Your task to perform on an android device: View the shopping cart on newegg.com. Search for apple airpods pro on newegg.com, select the first entry, and add it to the cart. Image 0: 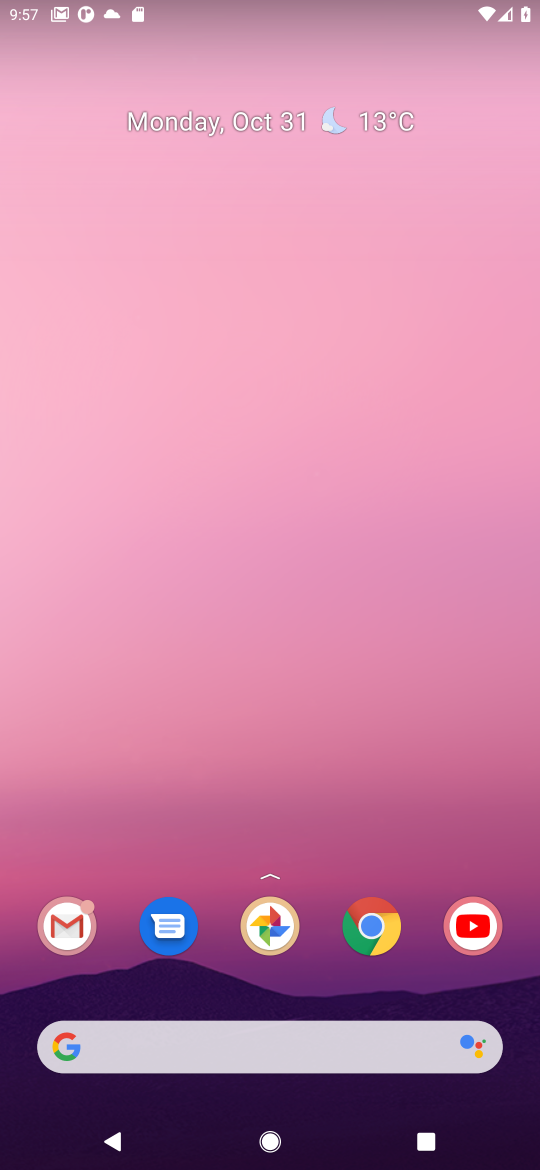
Step 0: click (346, 1053)
Your task to perform on an android device: View the shopping cart on newegg.com. Search for apple airpods pro on newegg.com, select the first entry, and add it to the cart. Image 1: 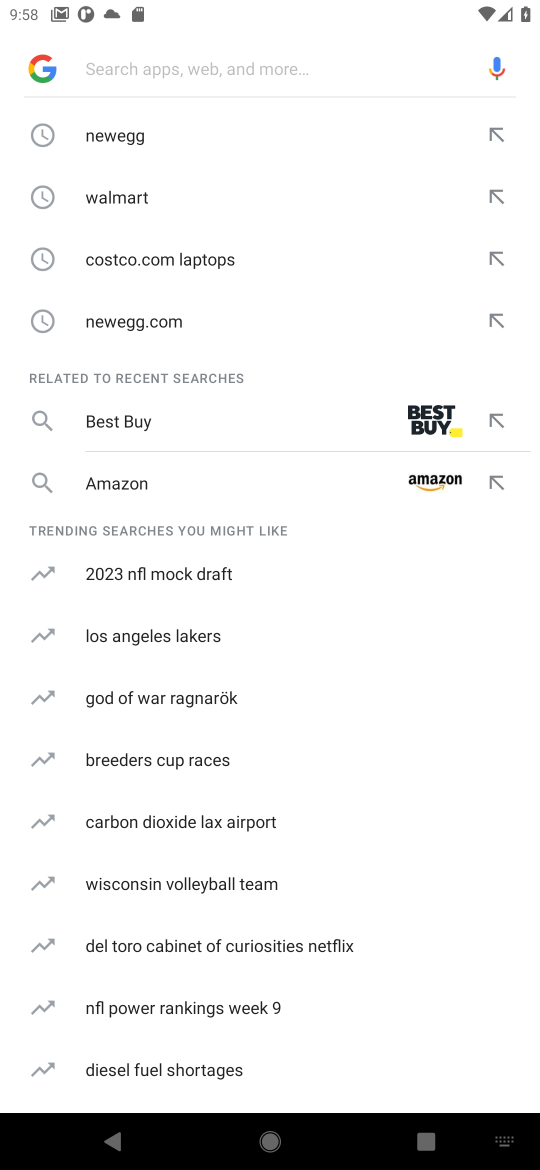
Step 1: click (124, 137)
Your task to perform on an android device: View the shopping cart on newegg.com. Search for apple airpods pro on newegg.com, select the first entry, and add it to the cart. Image 2: 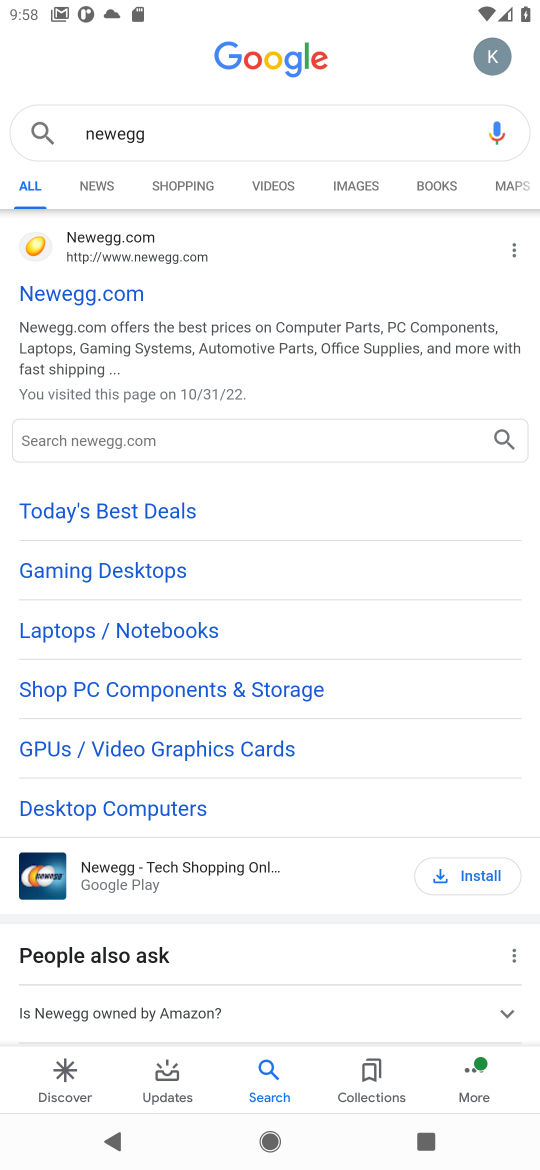
Step 2: click (361, 438)
Your task to perform on an android device: View the shopping cart on newegg.com. Search for apple airpods pro on newegg.com, select the first entry, and add it to the cart. Image 3: 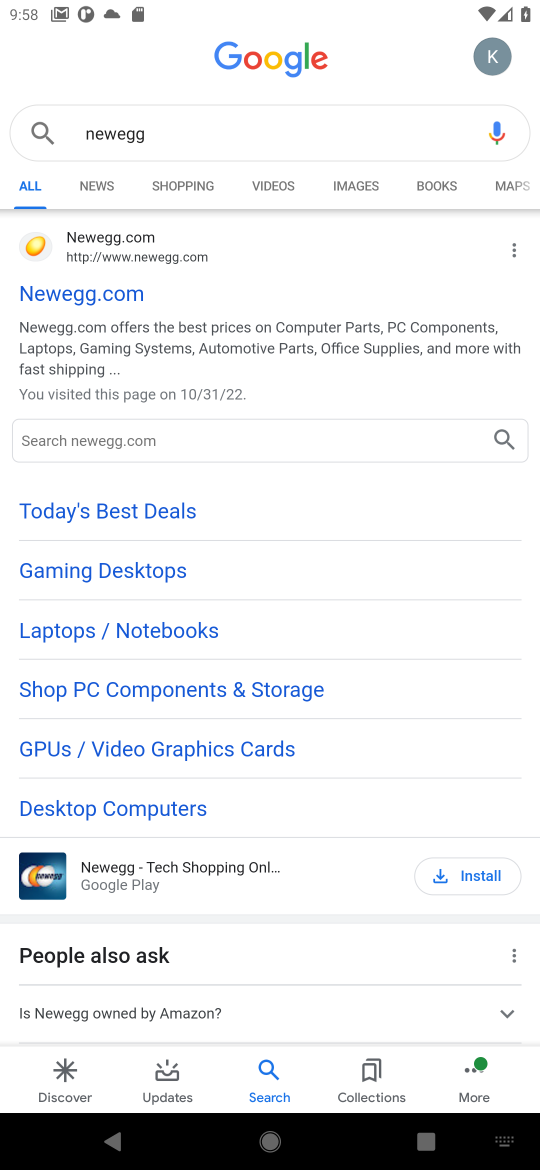
Step 3: type "apple airpods"
Your task to perform on an android device: View the shopping cart on newegg.com. Search for apple airpods pro on newegg.com, select the first entry, and add it to the cart. Image 4: 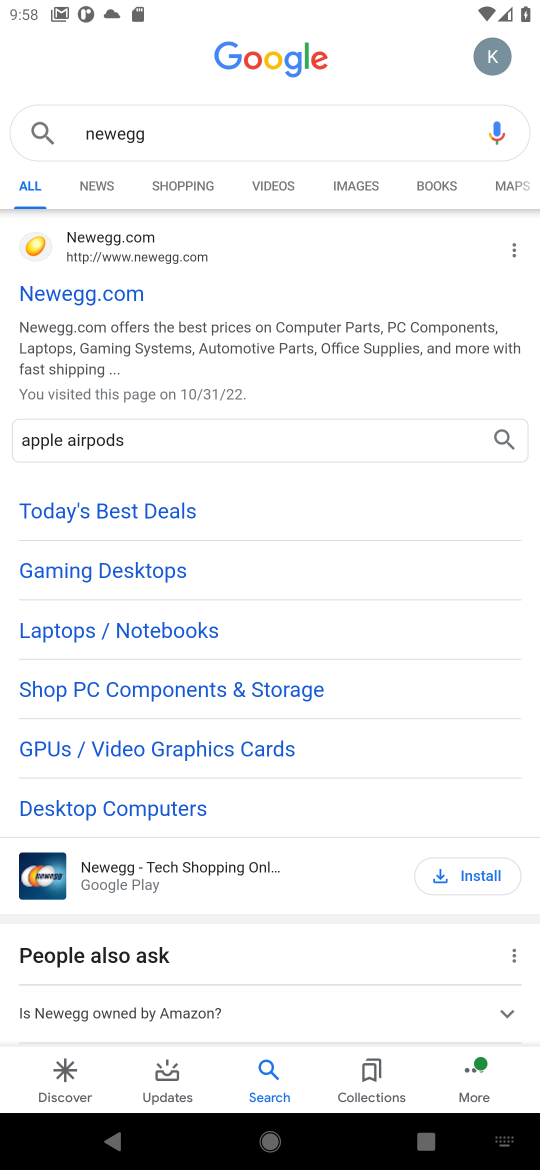
Step 4: click (501, 437)
Your task to perform on an android device: View the shopping cart on newegg.com. Search for apple airpods pro on newegg.com, select the first entry, and add it to the cart. Image 5: 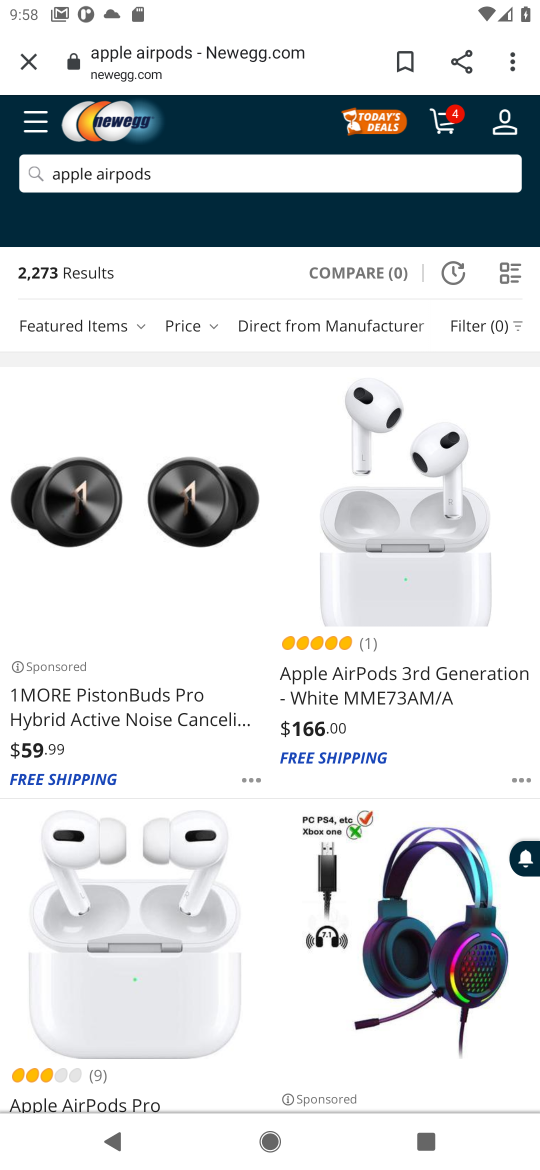
Step 5: click (382, 674)
Your task to perform on an android device: View the shopping cart on newegg.com. Search for apple airpods pro on newegg.com, select the first entry, and add it to the cart. Image 6: 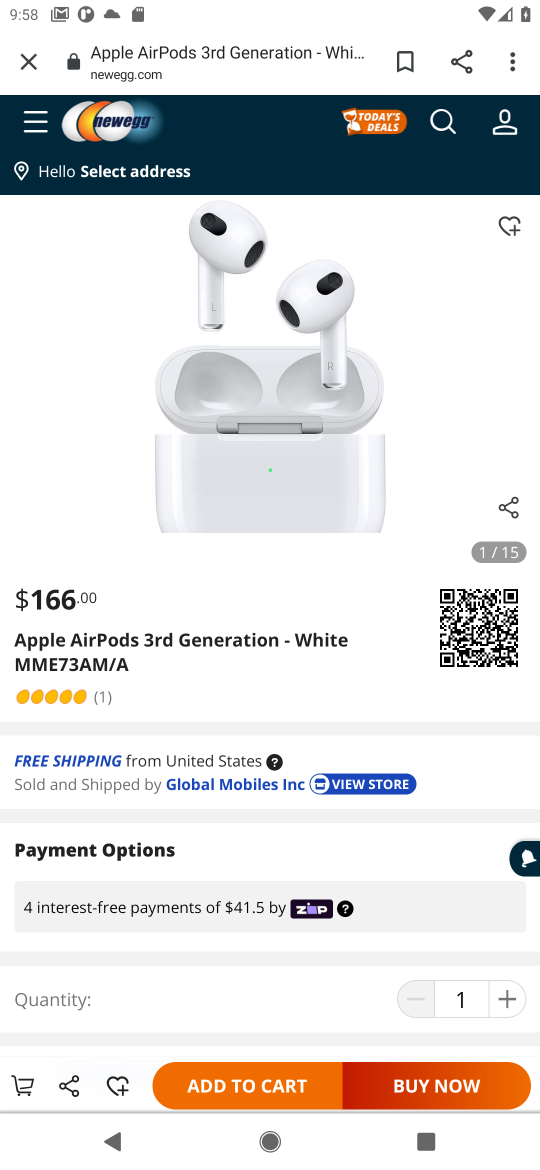
Step 6: click (256, 1082)
Your task to perform on an android device: View the shopping cart on newegg.com. Search for apple airpods pro on newegg.com, select the first entry, and add it to the cart. Image 7: 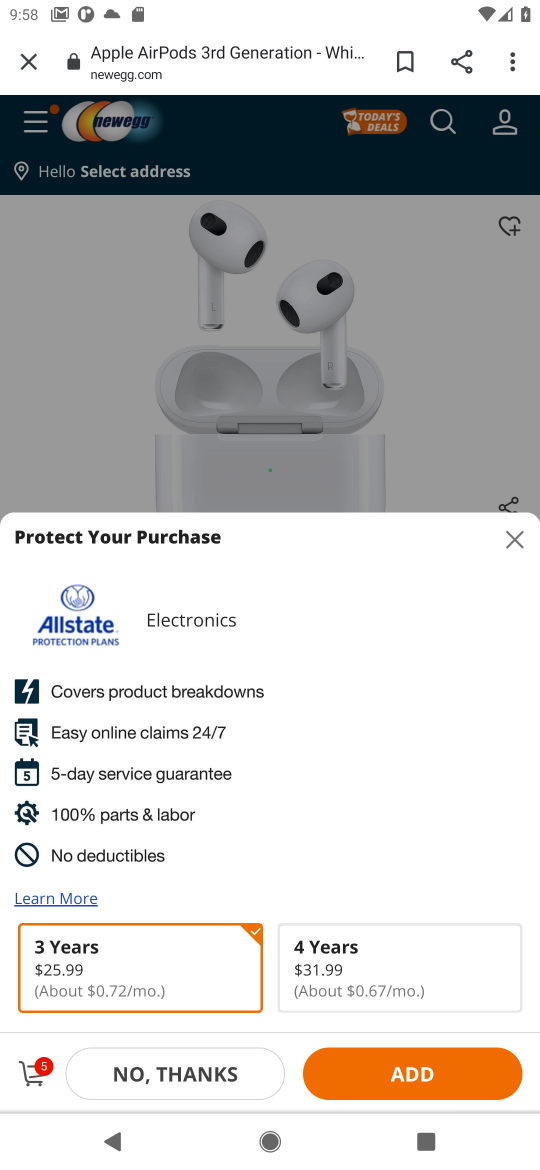
Step 7: task complete